Your task to perform on an android device: Open Yahoo.com Image 0: 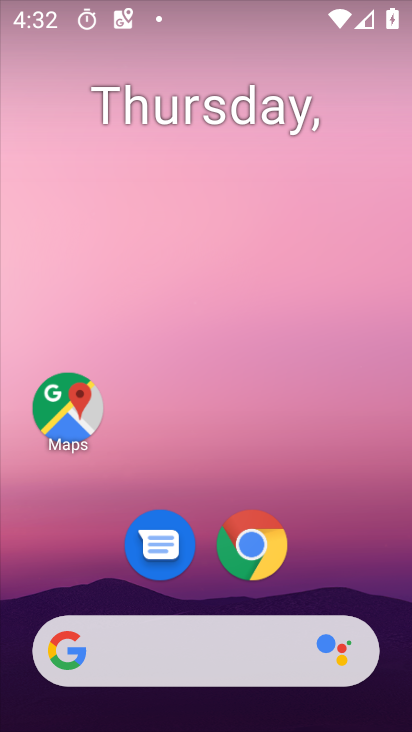
Step 0: click (256, 544)
Your task to perform on an android device: Open Yahoo.com Image 1: 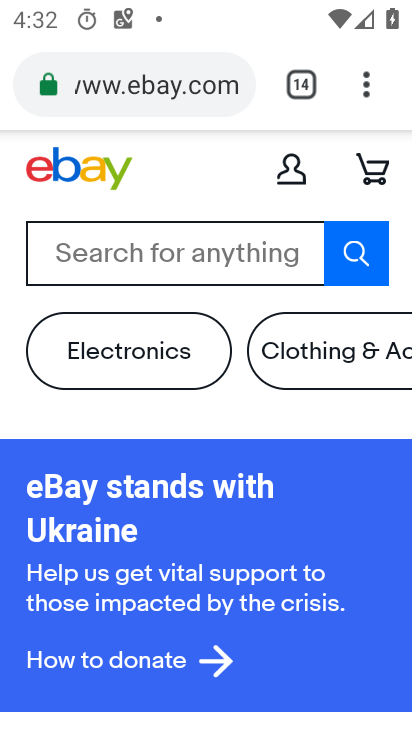
Step 1: click (366, 93)
Your task to perform on an android device: Open Yahoo.com Image 2: 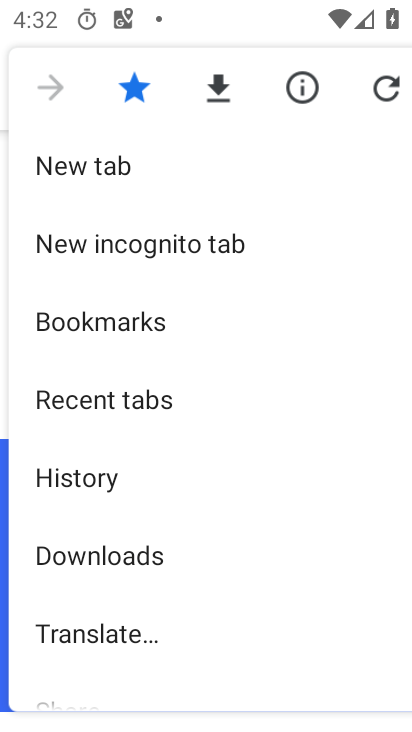
Step 2: click (79, 164)
Your task to perform on an android device: Open Yahoo.com Image 3: 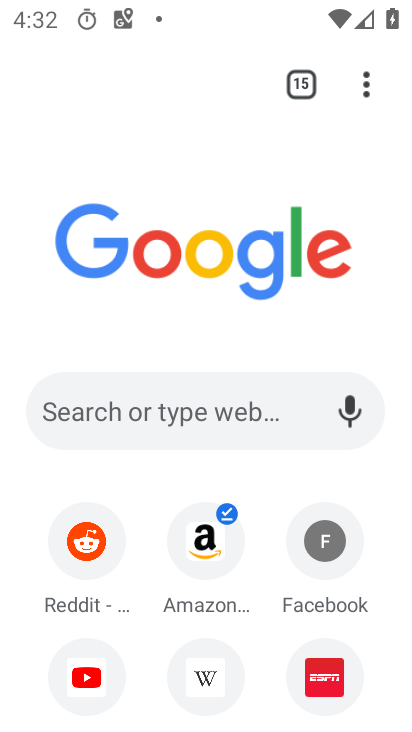
Step 3: drag from (161, 696) to (150, 369)
Your task to perform on an android device: Open Yahoo.com Image 4: 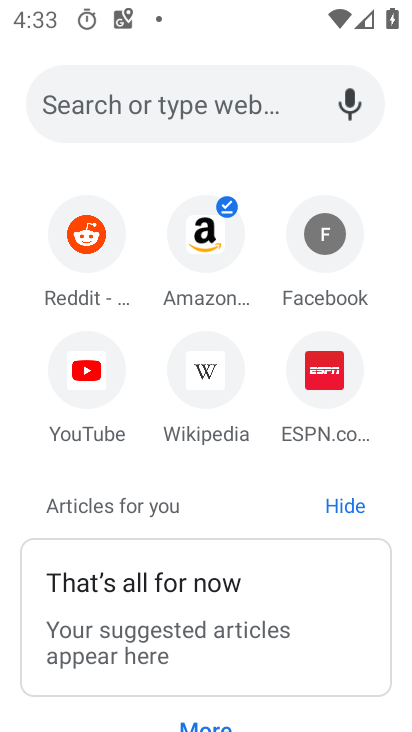
Step 4: click (174, 114)
Your task to perform on an android device: Open Yahoo.com Image 5: 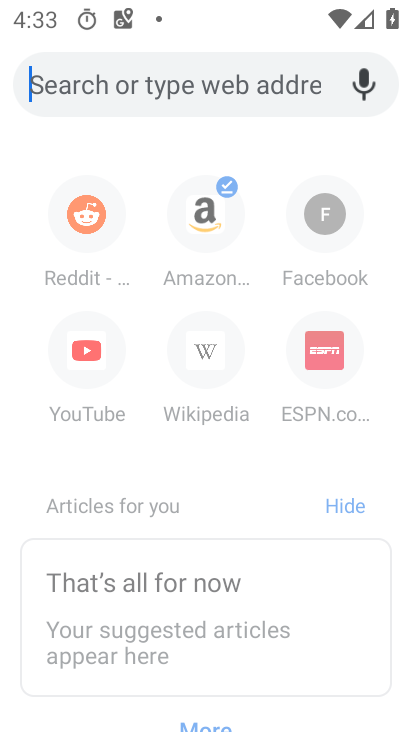
Step 5: type "Yahoo.com"
Your task to perform on an android device: Open Yahoo.com Image 6: 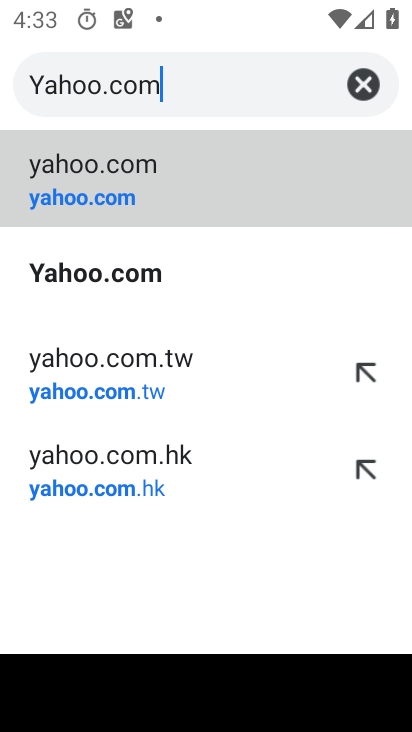
Step 6: click (109, 174)
Your task to perform on an android device: Open Yahoo.com Image 7: 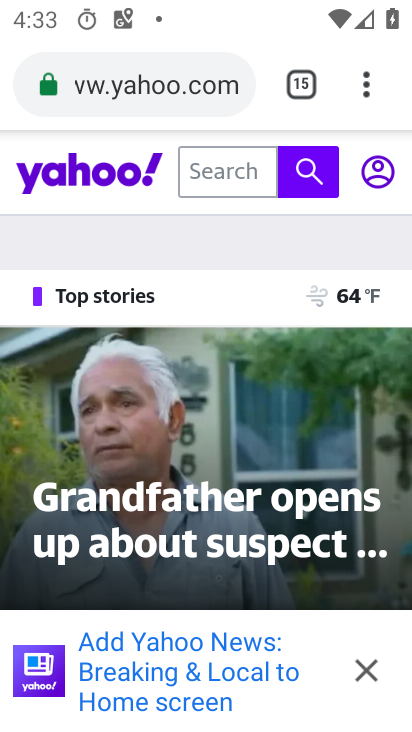
Step 7: task complete